Your task to perform on an android device: turn on priority inbox in the gmail app Image 0: 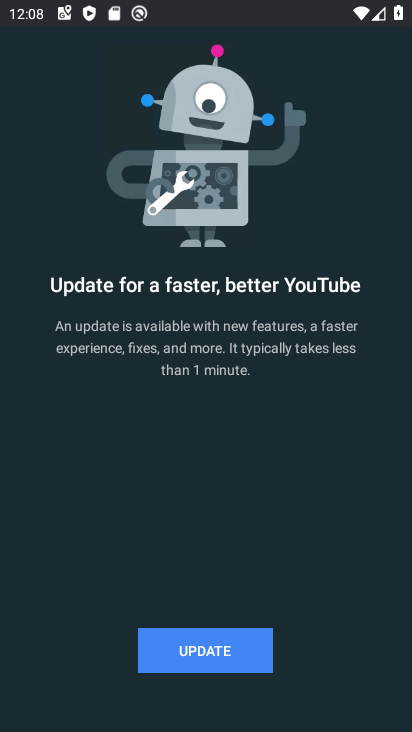
Step 0: press home button
Your task to perform on an android device: turn on priority inbox in the gmail app Image 1: 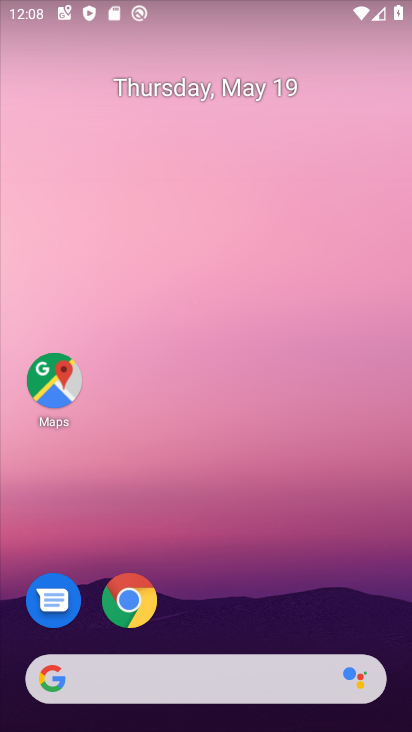
Step 1: drag from (244, 521) to (230, 13)
Your task to perform on an android device: turn on priority inbox in the gmail app Image 2: 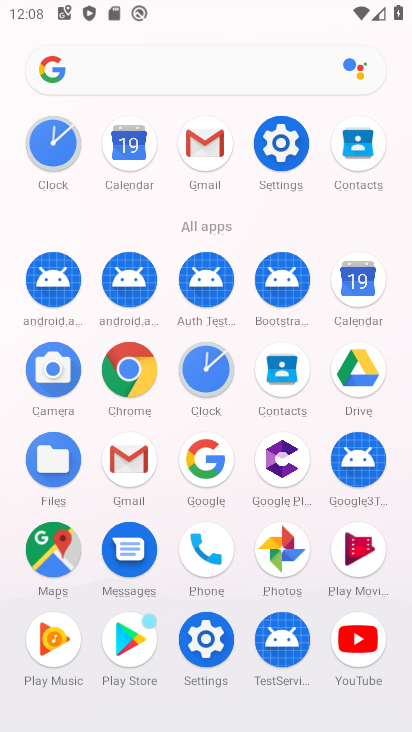
Step 2: click (131, 462)
Your task to perform on an android device: turn on priority inbox in the gmail app Image 3: 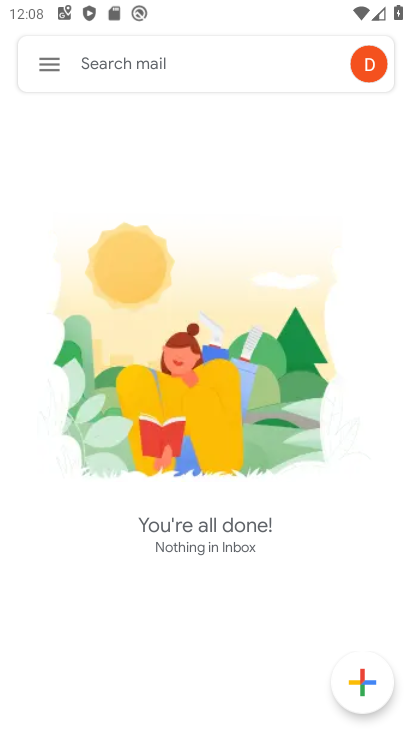
Step 3: click (47, 65)
Your task to perform on an android device: turn on priority inbox in the gmail app Image 4: 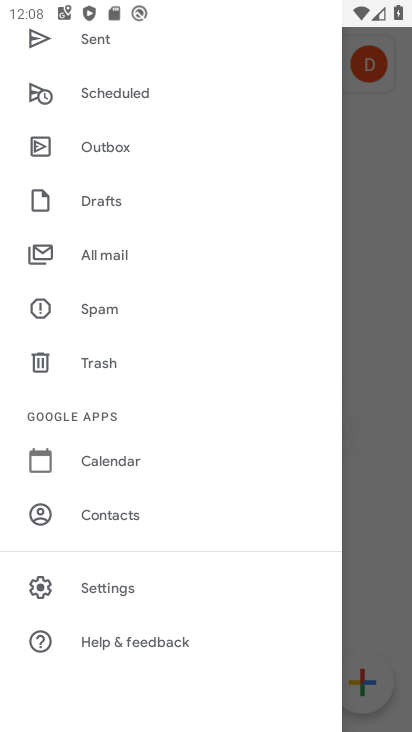
Step 4: click (164, 589)
Your task to perform on an android device: turn on priority inbox in the gmail app Image 5: 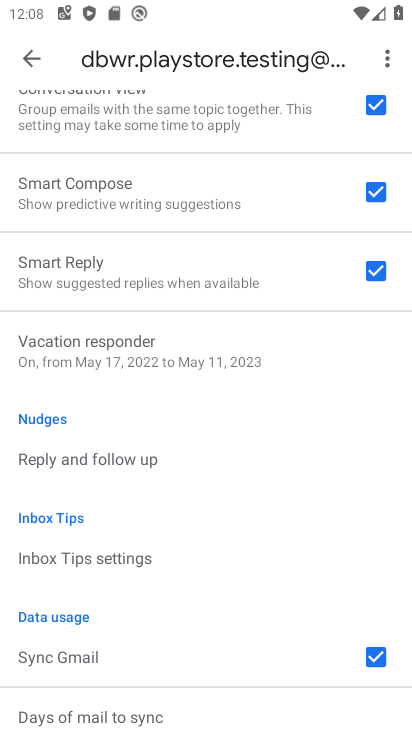
Step 5: drag from (215, 263) to (229, 719)
Your task to perform on an android device: turn on priority inbox in the gmail app Image 6: 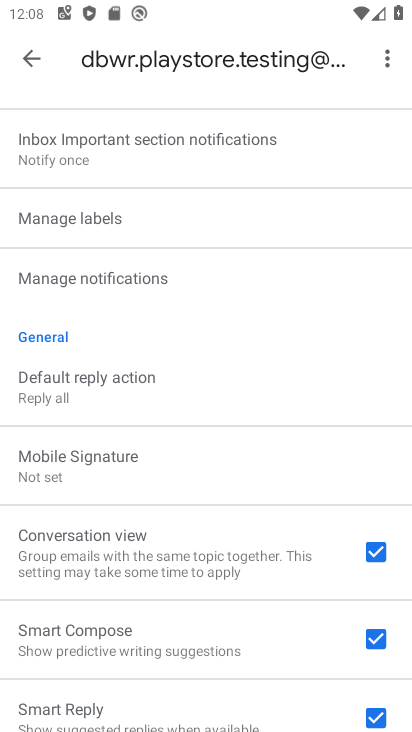
Step 6: drag from (237, 219) to (228, 716)
Your task to perform on an android device: turn on priority inbox in the gmail app Image 7: 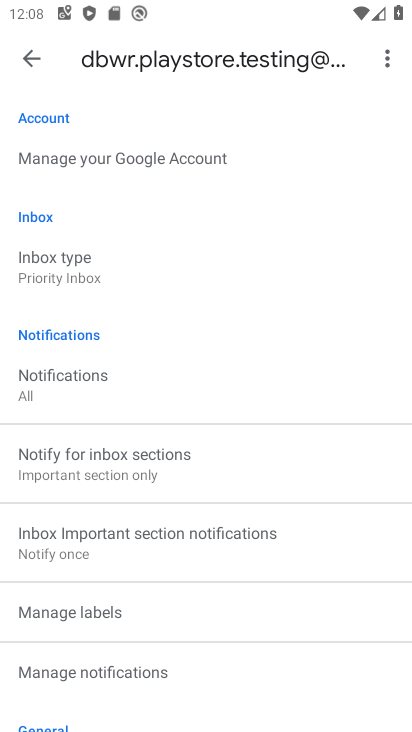
Step 7: click (101, 264)
Your task to perform on an android device: turn on priority inbox in the gmail app Image 8: 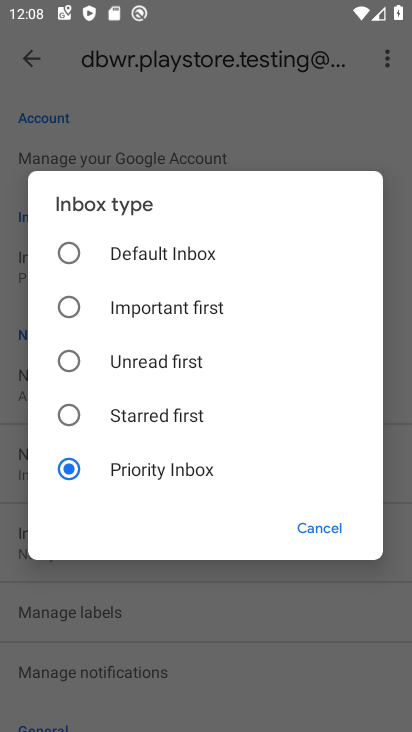
Step 8: task complete